Your task to perform on an android device: toggle show notifications on the lock screen Image 0: 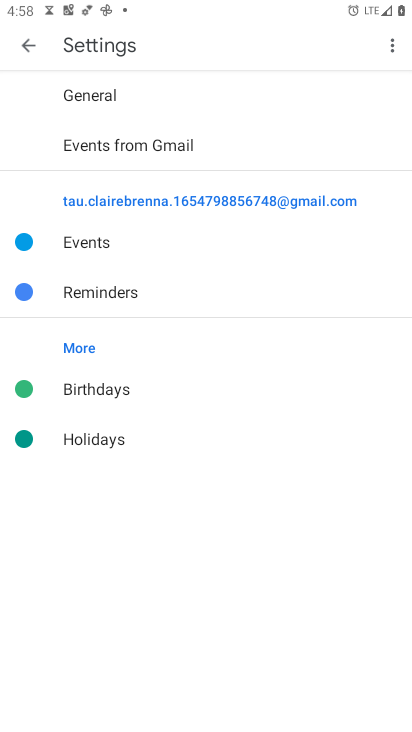
Step 0: press home button
Your task to perform on an android device: toggle show notifications on the lock screen Image 1: 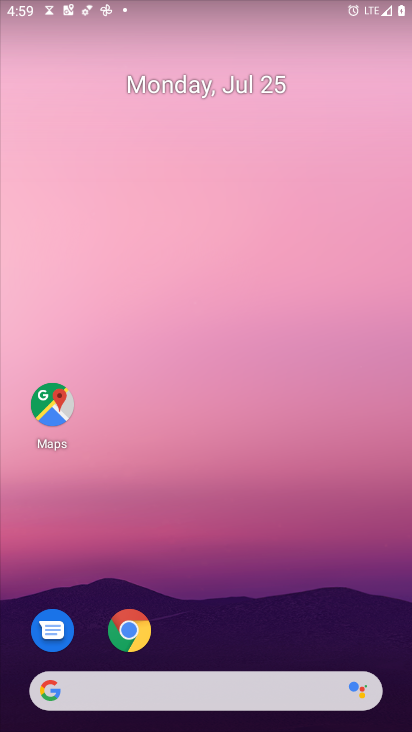
Step 1: drag from (187, 703) to (262, 195)
Your task to perform on an android device: toggle show notifications on the lock screen Image 2: 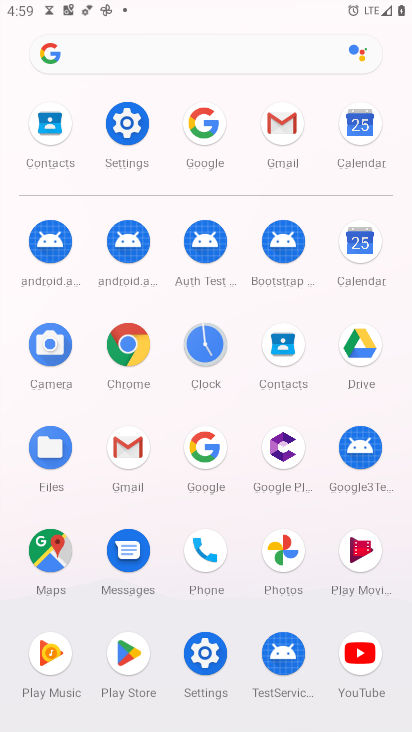
Step 2: click (126, 123)
Your task to perform on an android device: toggle show notifications on the lock screen Image 3: 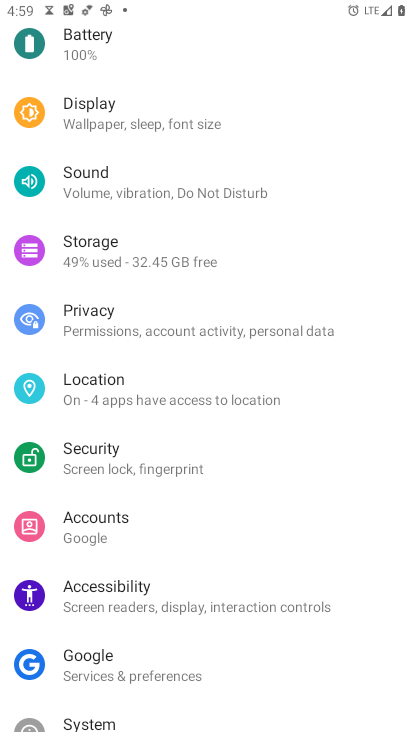
Step 3: drag from (147, 158) to (125, 364)
Your task to perform on an android device: toggle show notifications on the lock screen Image 4: 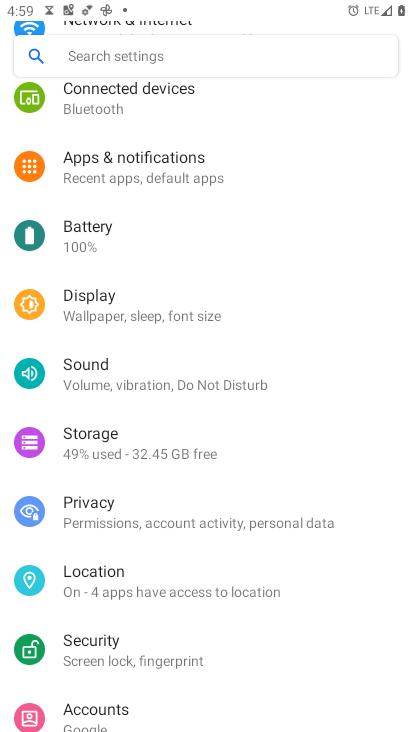
Step 4: click (144, 172)
Your task to perform on an android device: toggle show notifications on the lock screen Image 5: 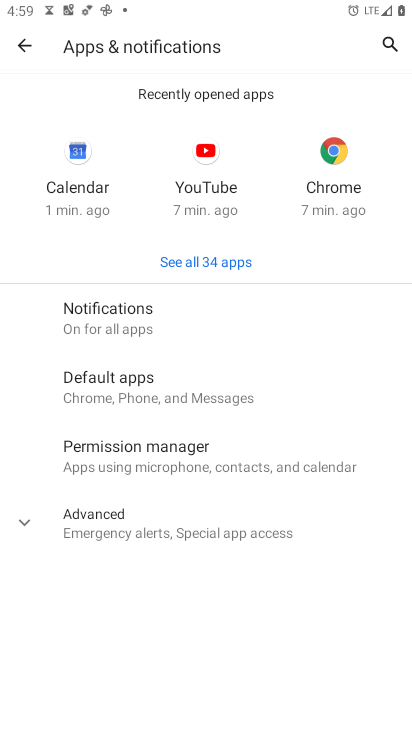
Step 5: click (94, 308)
Your task to perform on an android device: toggle show notifications on the lock screen Image 6: 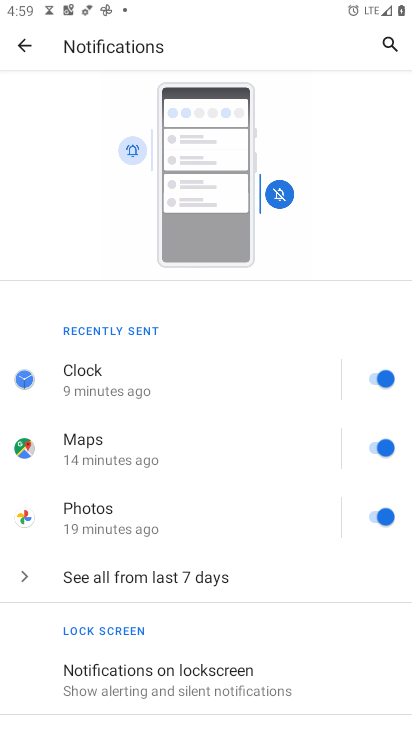
Step 6: drag from (147, 644) to (204, 431)
Your task to perform on an android device: toggle show notifications on the lock screen Image 7: 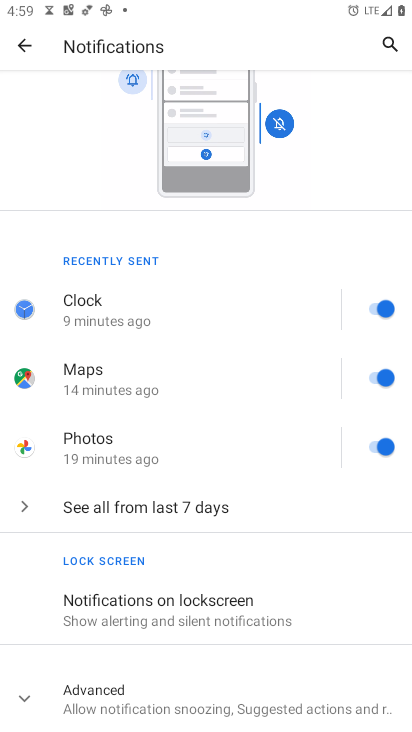
Step 7: click (147, 610)
Your task to perform on an android device: toggle show notifications on the lock screen Image 8: 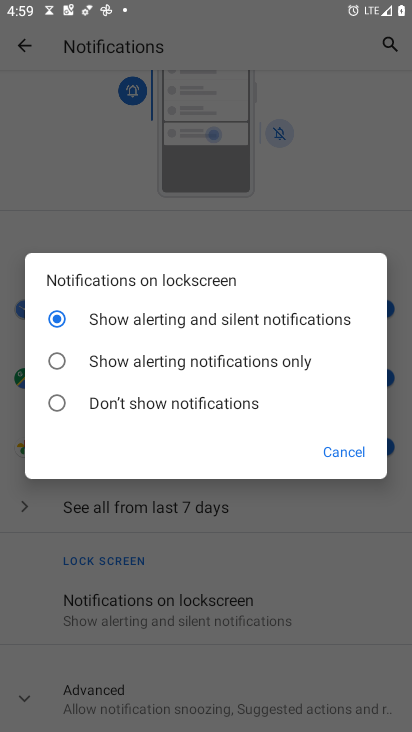
Step 8: click (54, 397)
Your task to perform on an android device: toggle show notifications on the lock screen Image 9: 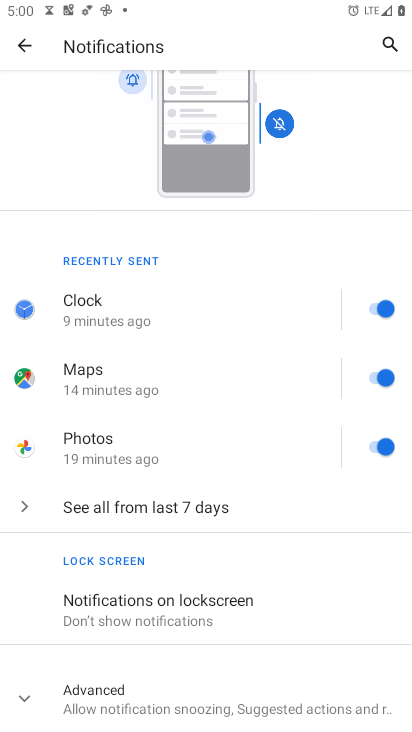
Step 9: task complete